Your task to perform on an android device: turn notification dots off Image 0: 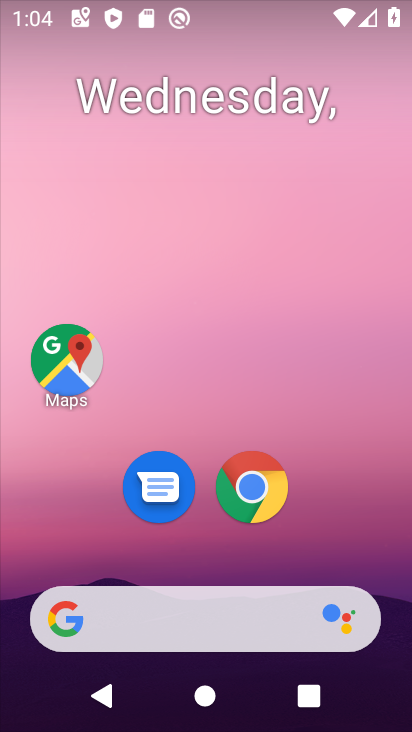
Step 0: drag from (219, 559) to (378, 4)
Your task to perform on an android device: turn notification dots off Image 1: 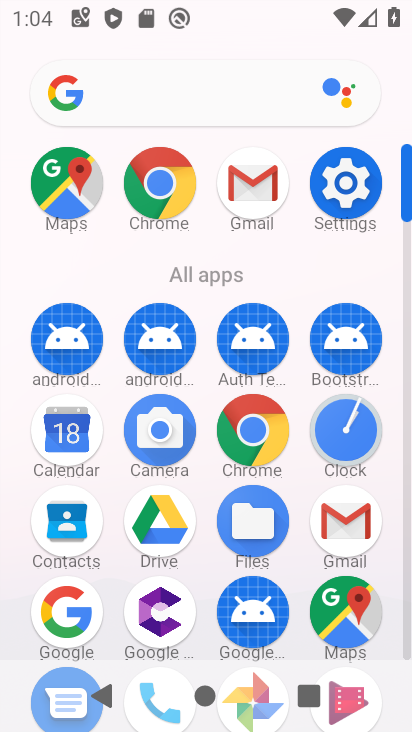
Step 1: click (362, 206)
Your task to perform on an android device: turn notification dots off Image 2: 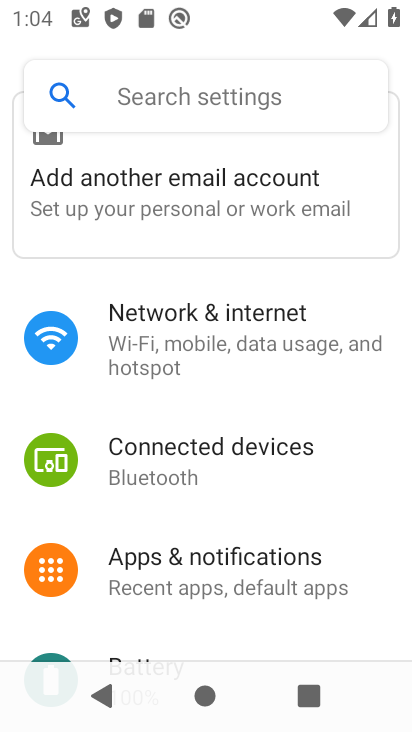
Step 2: click (218, 577)
Your task to perform on an android device: turn notification dots off Image 3: 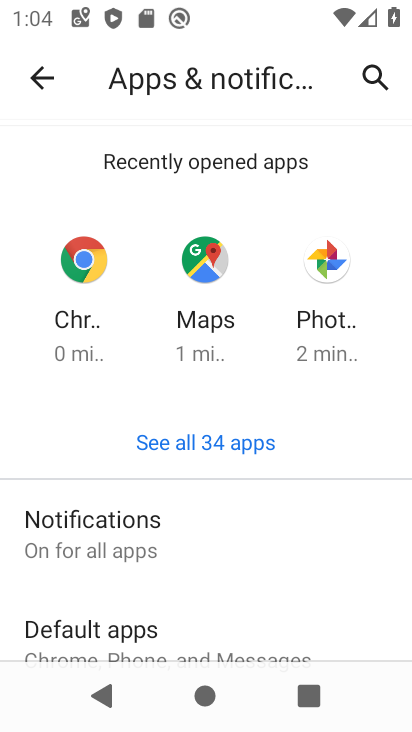
Step 3: click (120, 551)
Your task to perform on an android device: turn notification dots off Image 4: 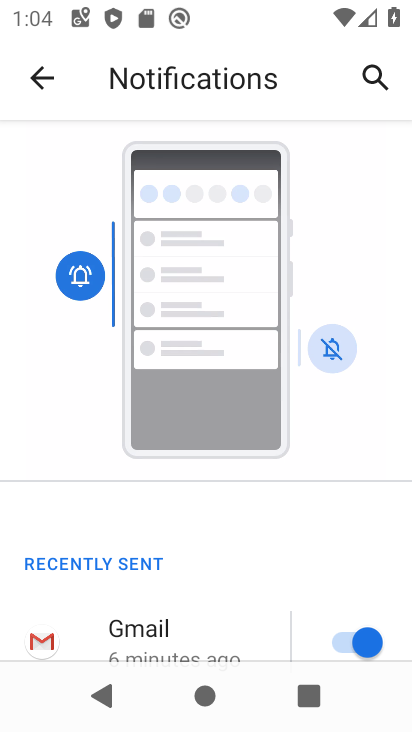
Step 4: drag from (182, 547) to (237, 294)
Your task to perform on an android device: turn notification dots off Image 5: 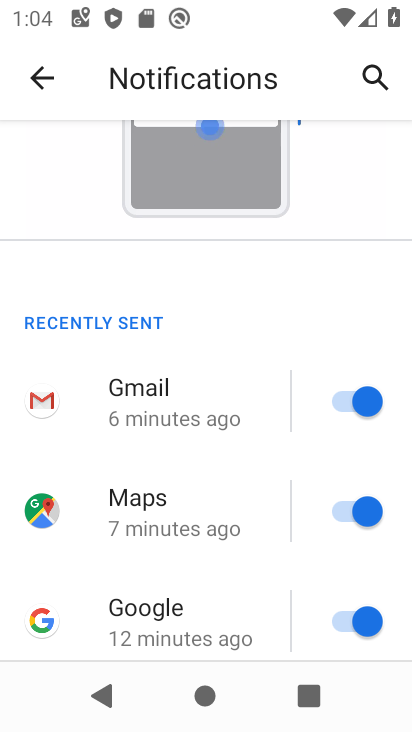
Step 5: drag from (152, 524) to (196, 294)
Your task to perform on an android device: turn notification dots off Image 6: 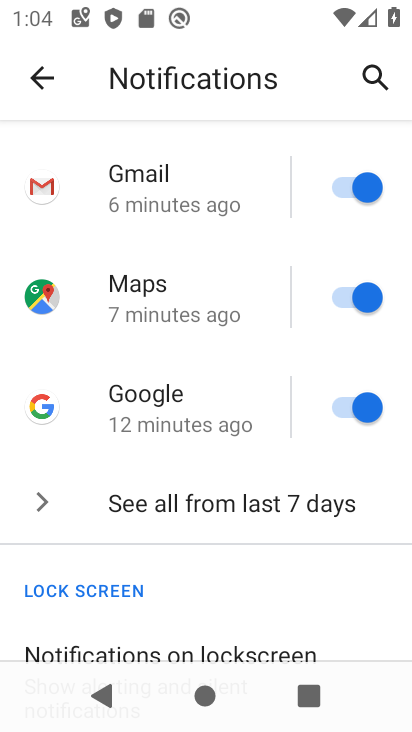
Step 6: drag from (215, 545) to (284, 299)
Your task to perform on an android device: turn notification dots off Image 7: 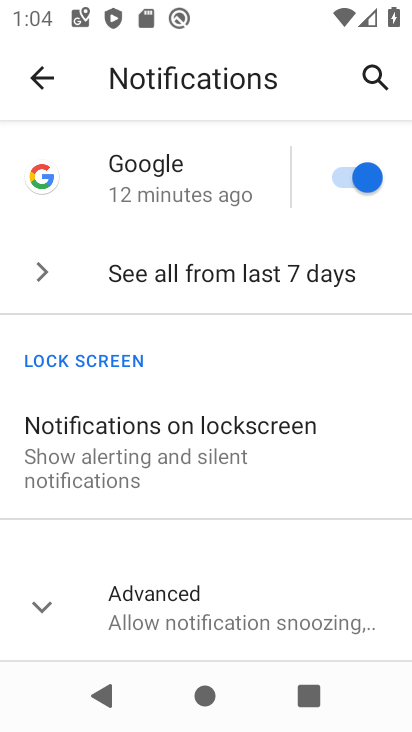
Step 7: drag from (284, 590) to (304, 413)
Your task to perform on an android device: turn notification dots off Image 8: 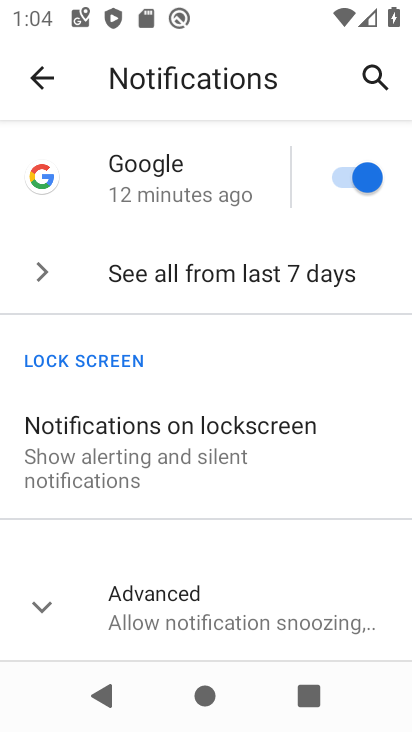
Step 8: click (197, 605)
Your task to perform on an android device: turn notification dots off Image 9: 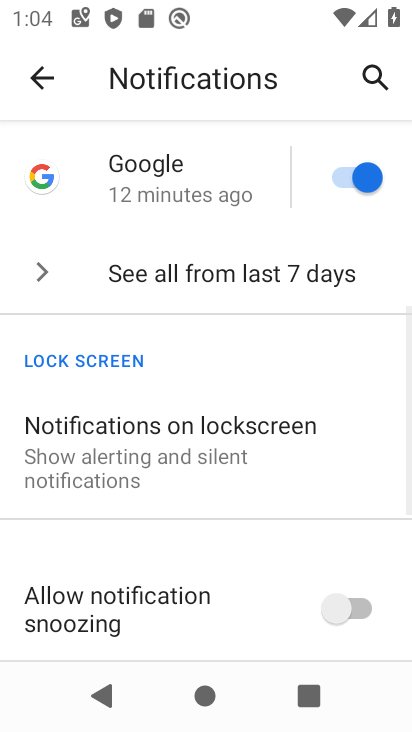
Step 9: drag from (208, 598) to (254, 294)
Your task to perform on an android device: turn notification dots off Image 10: 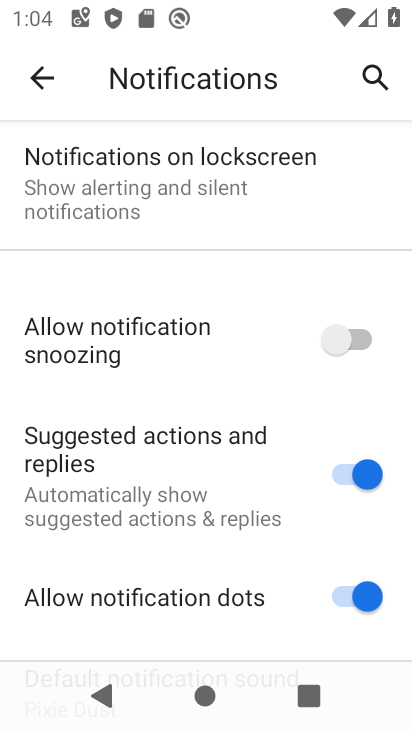
Step 10: click (330, 607)
Your task to perform on an android device: turn notification dots off Image 11: 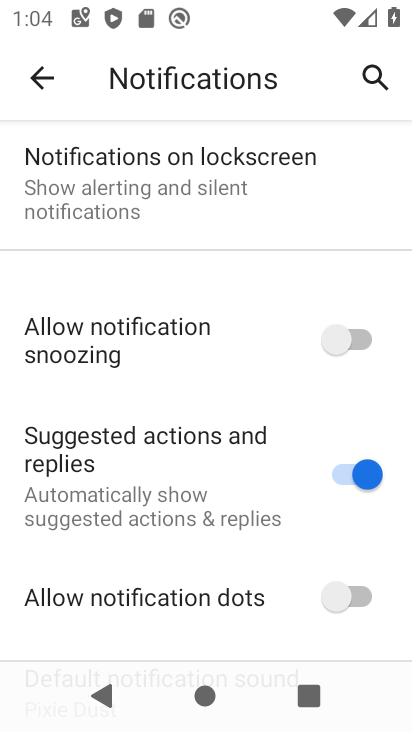
Step 11: task complete